Your task to perform on an android device: refresh tabs in the chrome app Image 0: 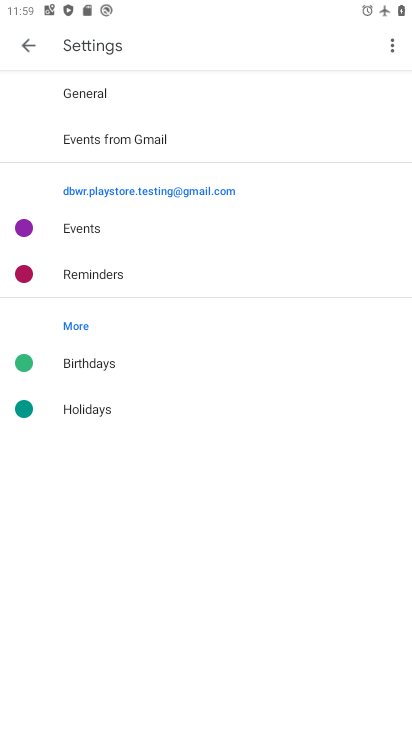
Step 0: press home button
Your task to perform on an android device: refresh tabs in the chrome app Image 1: 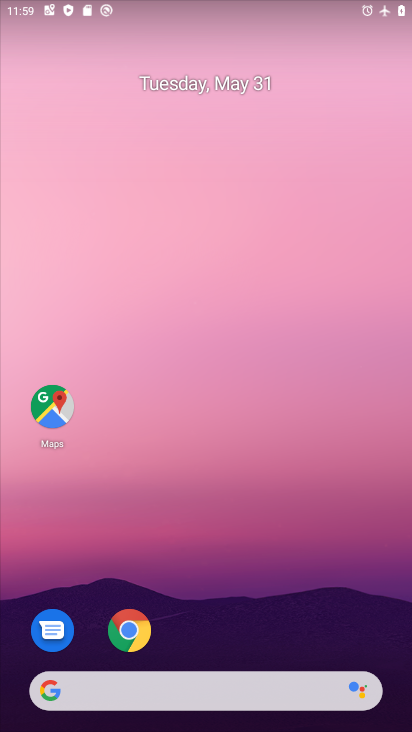
Step 1: click (119, 635)
Your task to perform on an android device: refresh tabs in the chrome app Image 2: 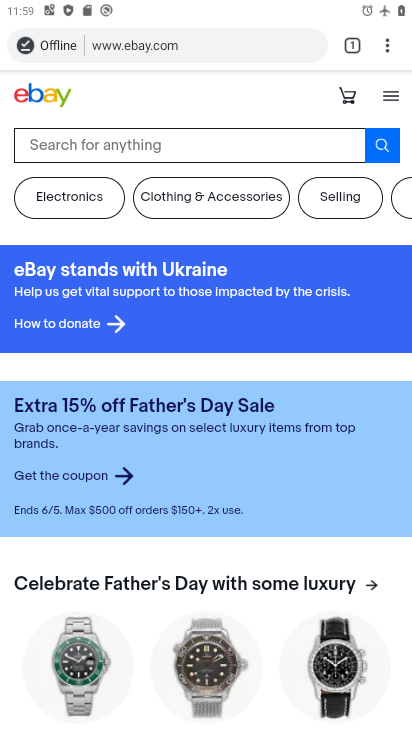
Step 2: click (383, 51)
Your task to perform on an android device: refresh tabs in the chrome app Image 3: 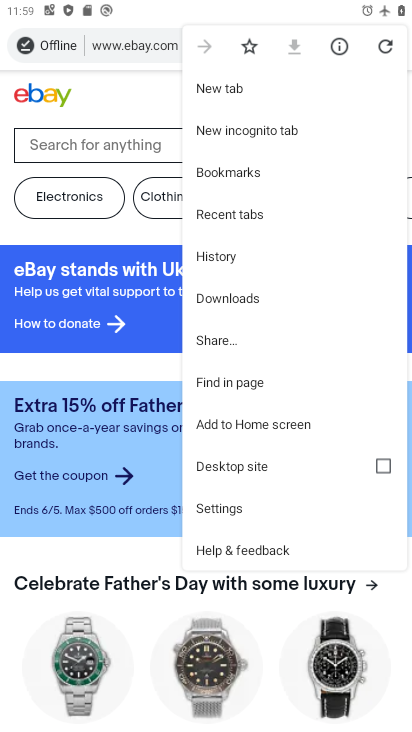
Step 3: click (386, 44)
Your task to perform on an android device: refresh tabs in the chrome app Image 4: 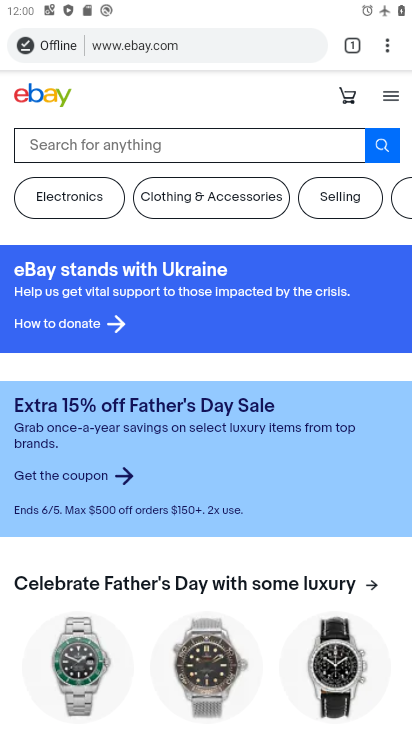
Step 4: task complete